Your task to perform on an android device: Go to sound settings Image 0: 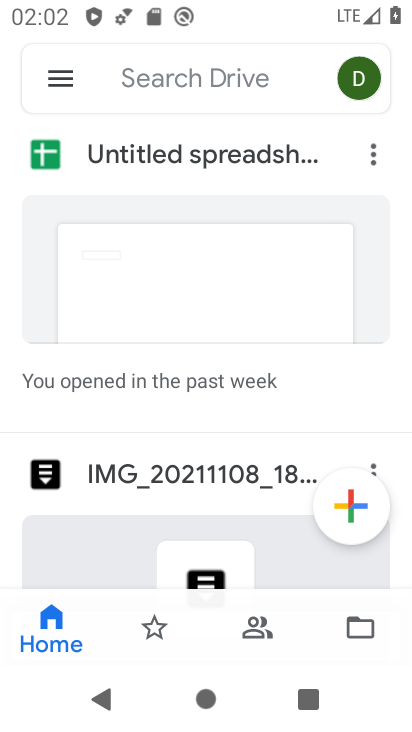
Step 0: press home button
Your task to perform on an android device: Go to sound settings Image 1: 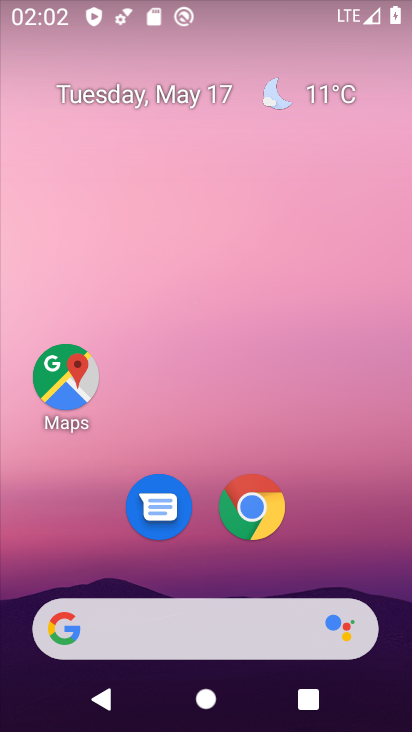
Step 1: drag from (197, 553) to (300, 19)
Your task to perform on an android device: Go to sound settings Image 2: 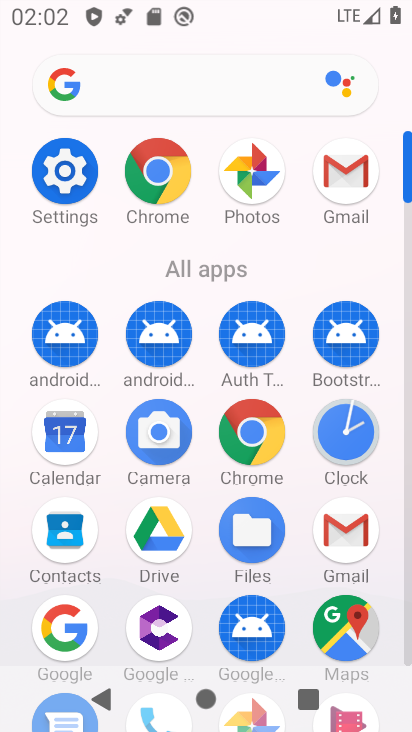
Step 2: drag from (113, 621) to (143, 451)
Your task to perform on an android device: Go to sound settings Image 3: 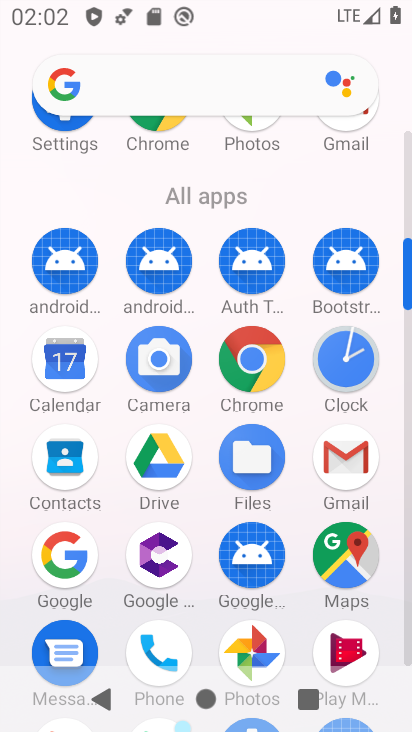
Step 3: drag from (203, 629) to (331, 137)
Your task to perform on an android device: Go to sound settings Image 4: 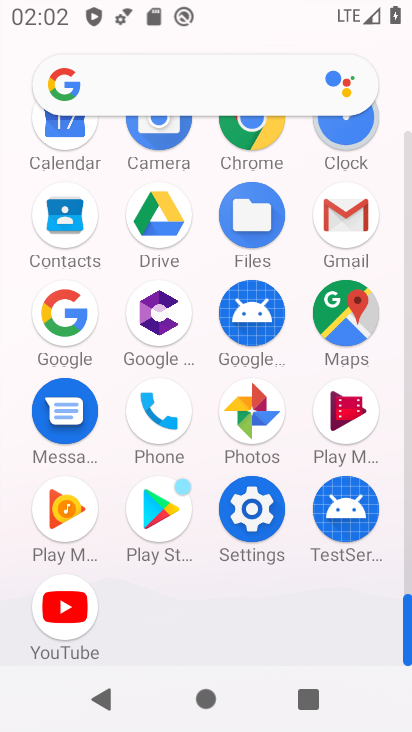
Step 4: click (256, 519)
Your task to perform on an android device: Go to sound settings Image 5: 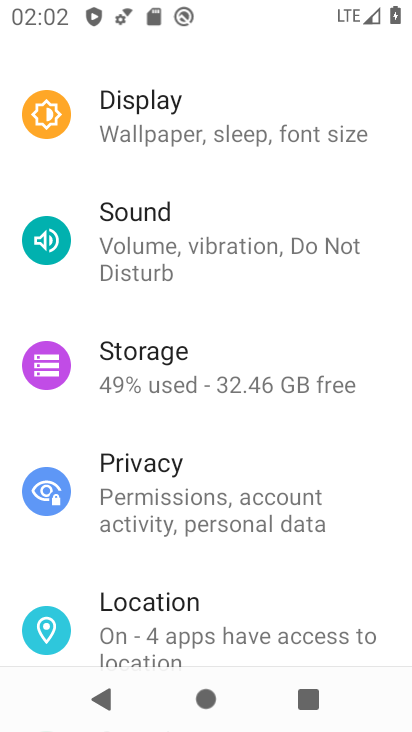
Step 5: click (200, 239)
Your task to perform on an android device: Go to sound settings Image 6: 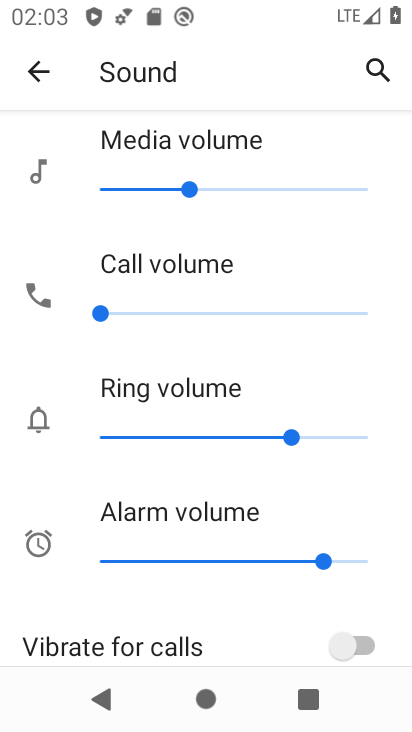
Step 6: task complete